Your task to perform on an android device: When is my next meeting? Image 0: 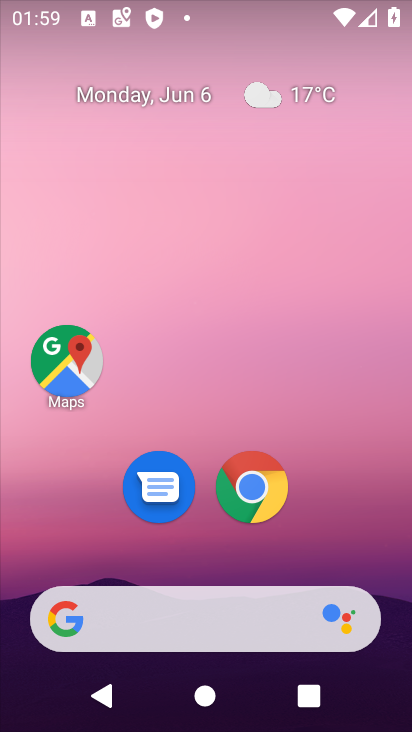
Step 0: drag from (403, 600) to (349, 40)
Your task to perform on an android device: When is my next meeting? Image 1: 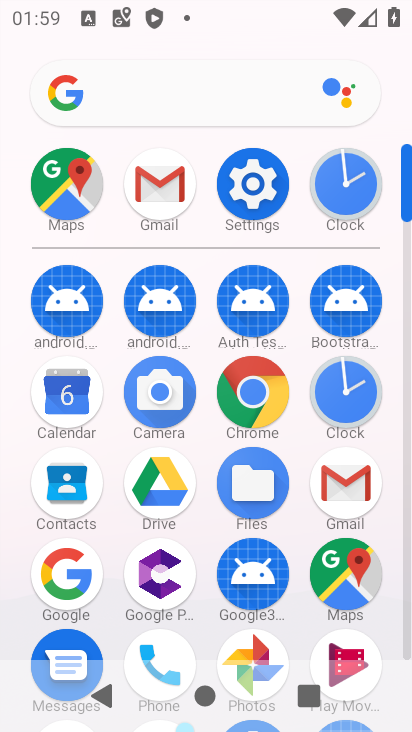
Step 1: click (67, 395)
Your task to perform on an android device: When is my next meeting? Image 2: 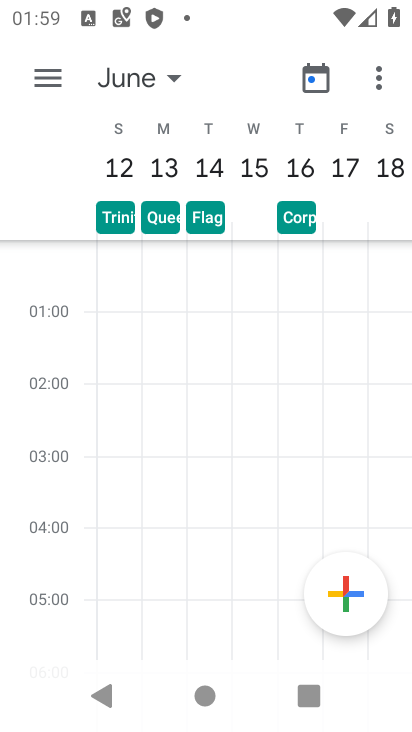
Step 2: click (52, 87)
Your task to perform on an android device: When is my next meeting? Image 3: 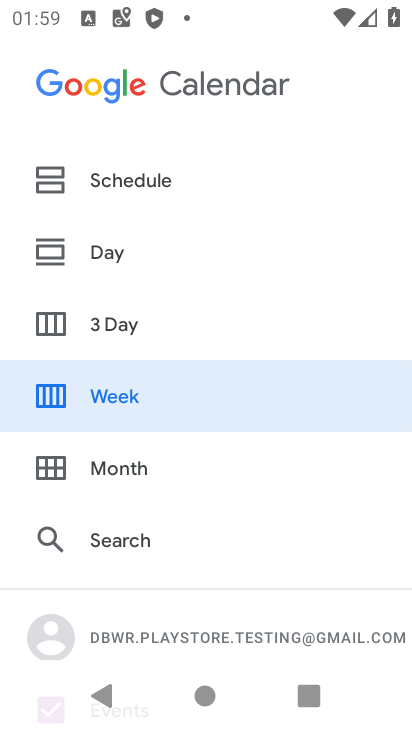
Step 3: click (119, 185)
Your task to perform on an android device: When is my next meeting? Image 4: 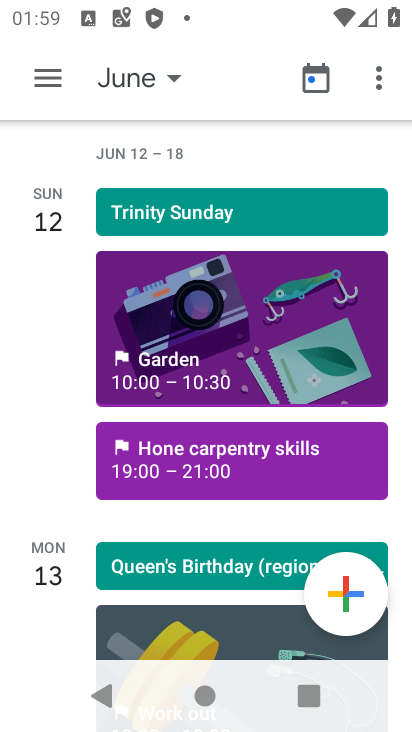
Step 4: task complete